Your task to perform on an android device: Search for vegetarian restaurants on Maps Image 0: 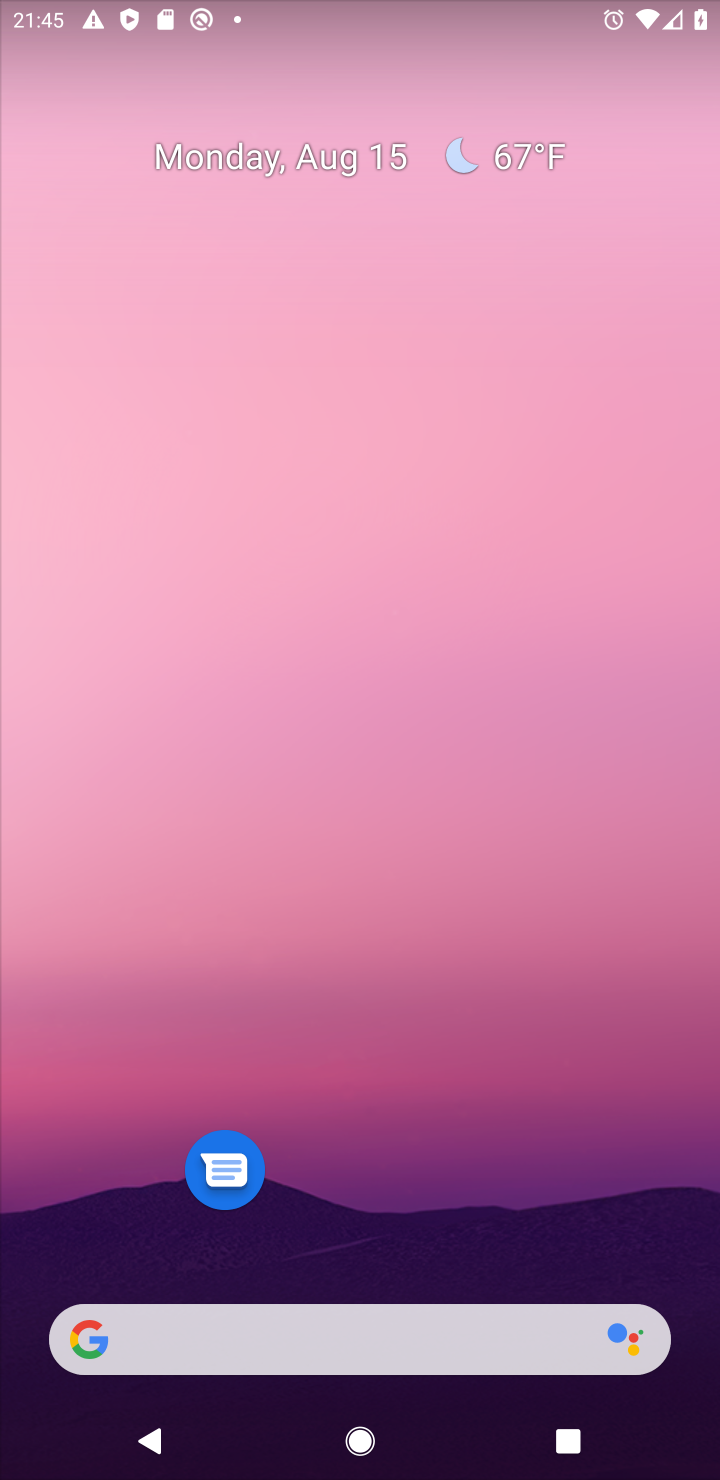
Step 0: drag from (199, 1162) to (316, 1)
Your task to perform on an android device: Search for vegetarian restaurants on Maps Image 1: 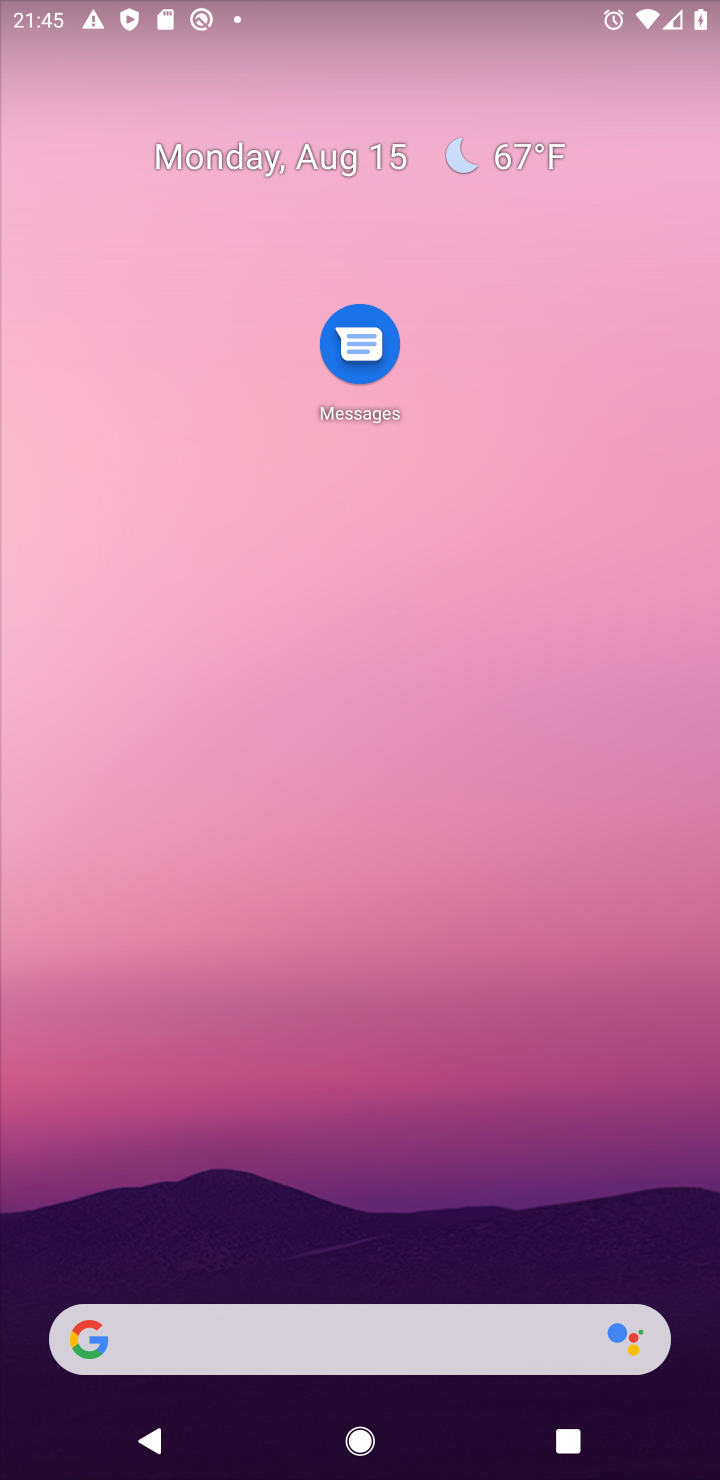
Step 1: drag from (378, 1372) to (479, 238)
Your task to perform on an android device: Search for vegetarian restaurants on Maps Image 2: 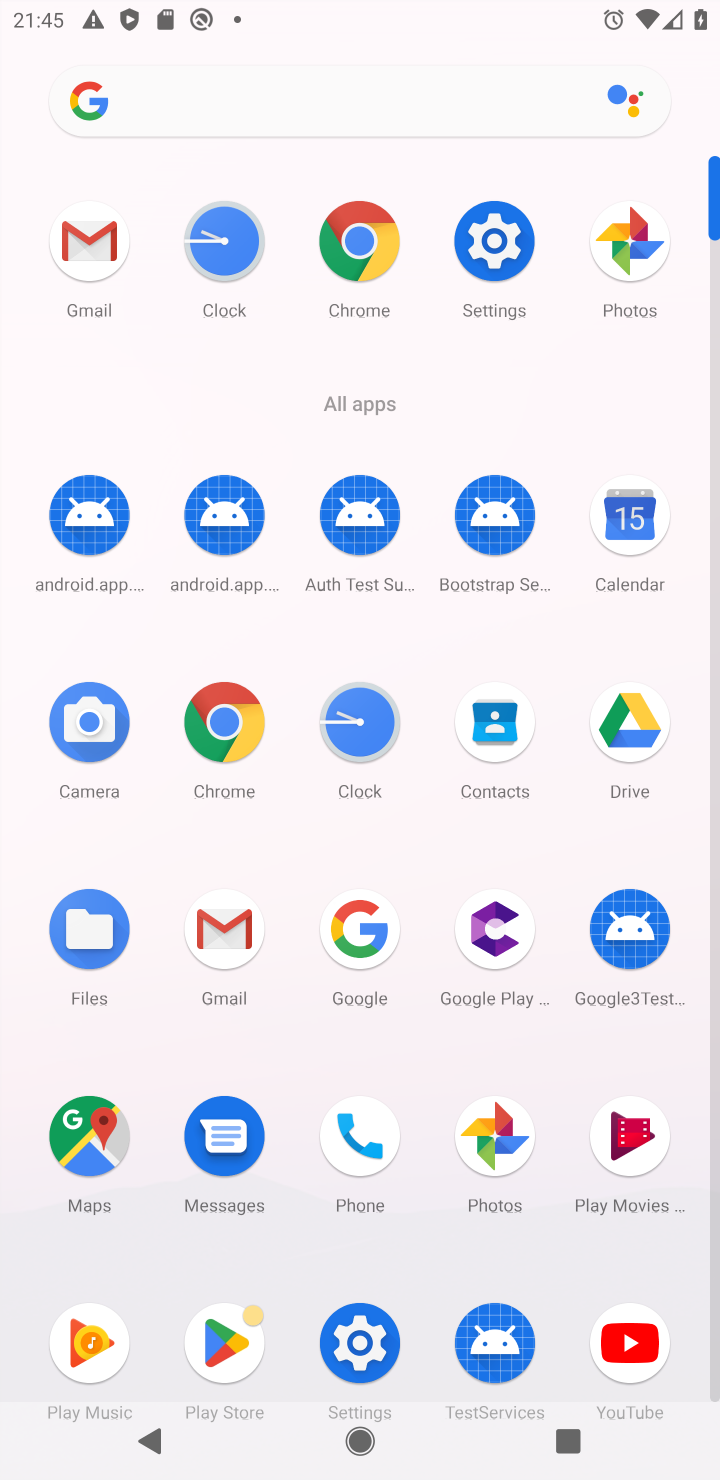
Step 2: click (82, 1161)
Your task to perform on an android device: Search for vegetarian restaurants on Maps Image 3: 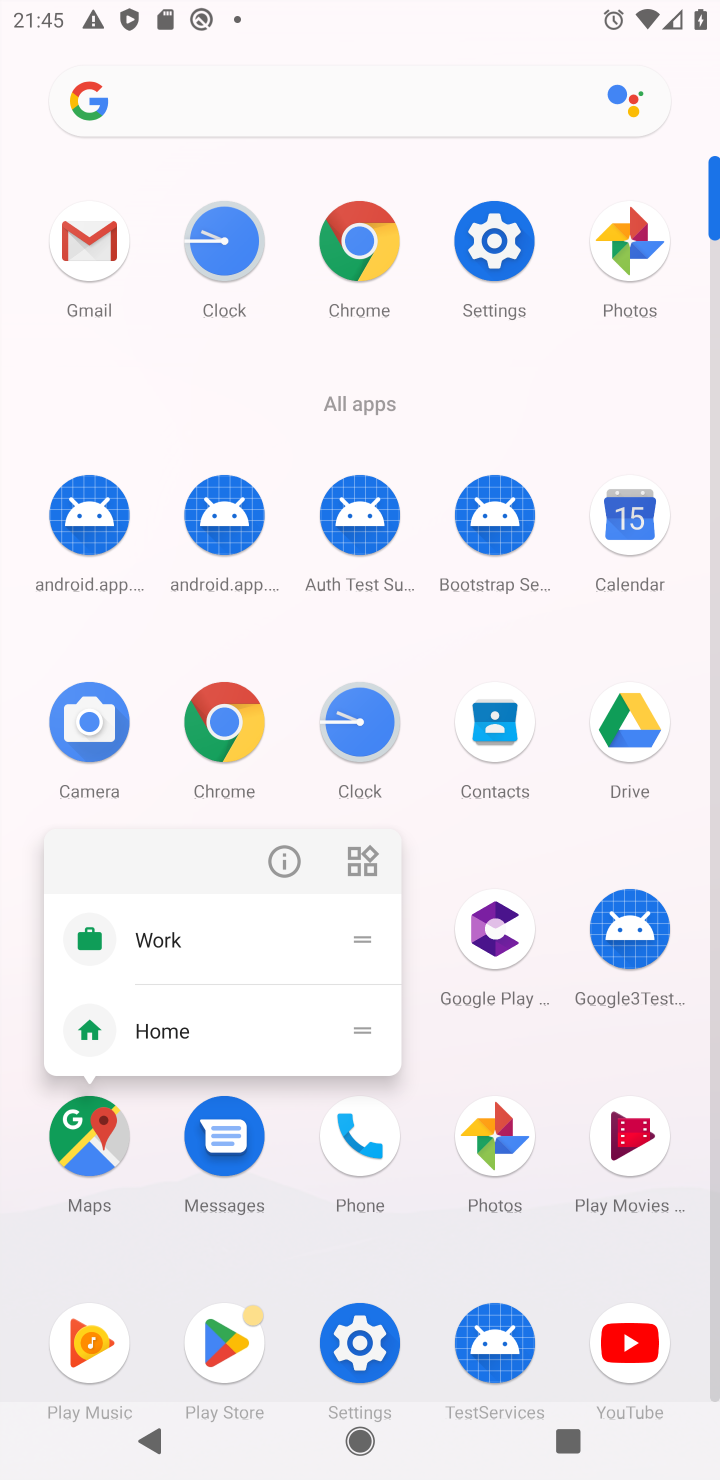
Step 3: click (93, 1149)
Your task to perform on an android device: Search for vegetarian restaurants on Maps Image 4: 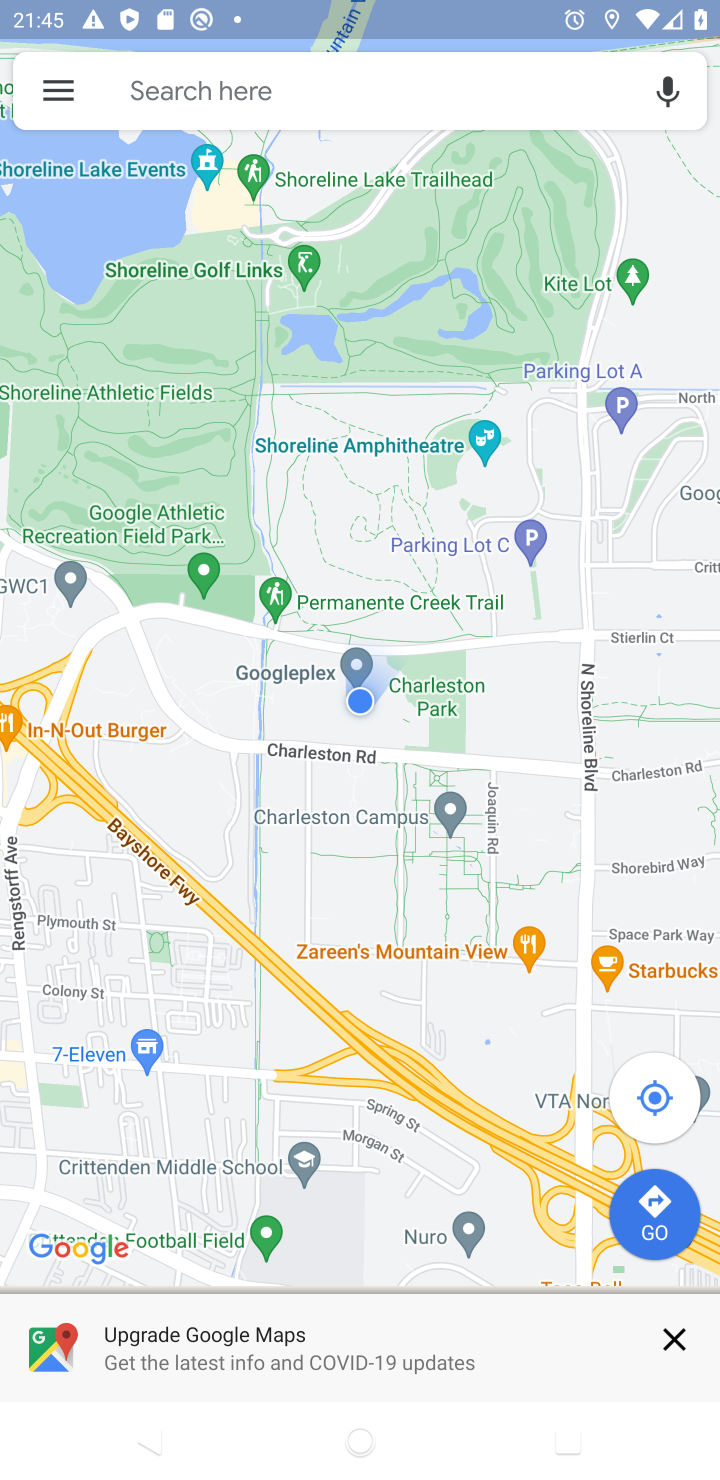
Step 4: click (257, 96)
Your task to perform on an android device: Search for vegetarian restaurants on Maps Image 5: 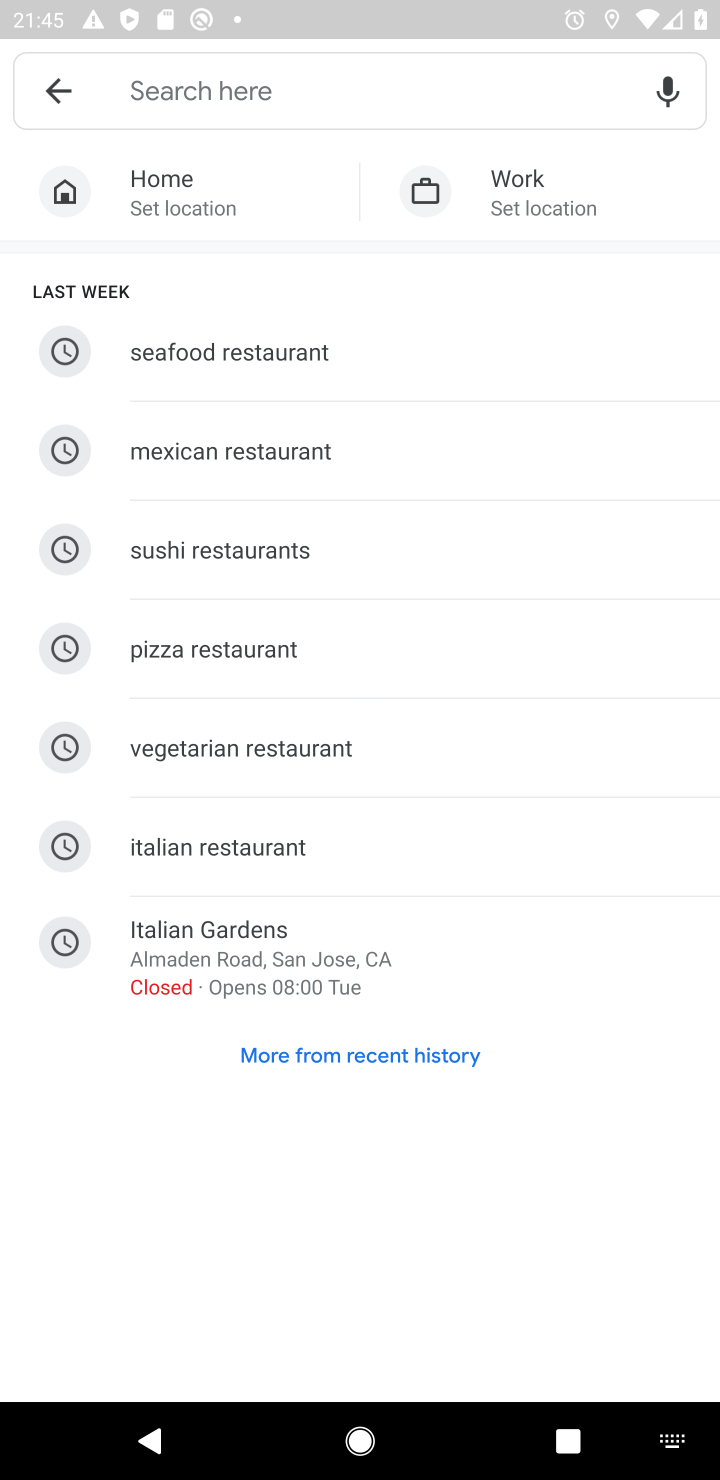
Step 5: click (300, 757)
Your task to perform on an android device: Search for vegetarian restaurants on Maps Image 6: 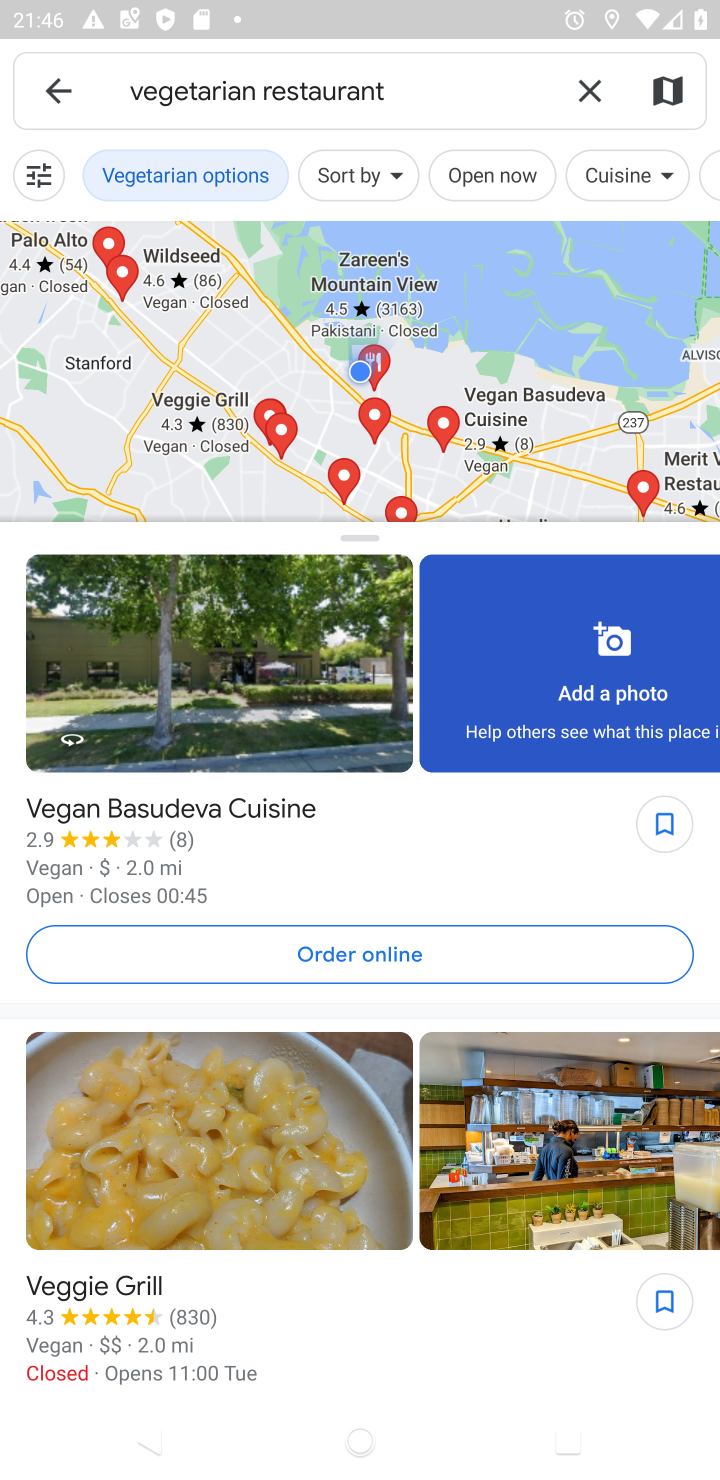
Step 6: task complete